Your task to perform on an android device: change the clock display to show seconds Image 0: 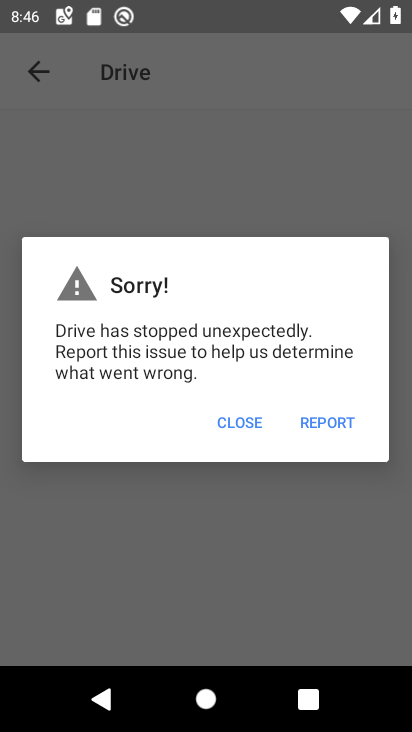
Step 0: press home button
Your task to perform on an android device: change the clock display to show seconds Image 1: 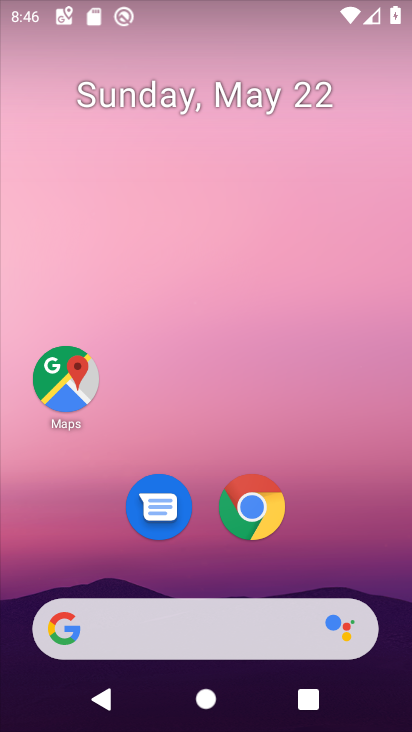
Step 1: drag from (204, 579) to (255, 150)
Your task to perform on an android device: change the clock display to show seconds Image 2: 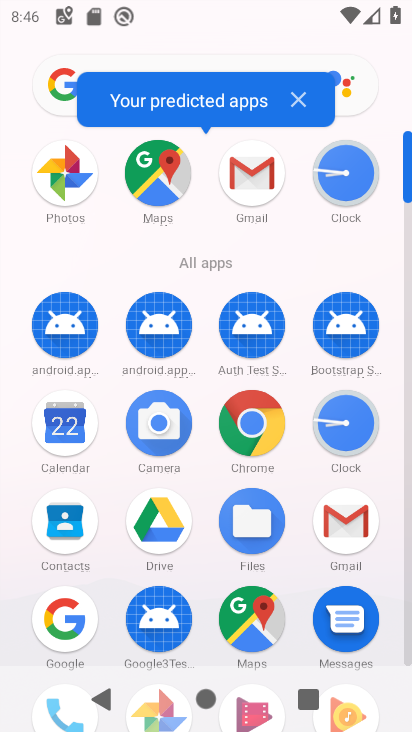
Step 2: drag from (130, 563) to (209, 220)
Your task to perform on an android device: change the clock display to show seconds Image 3: 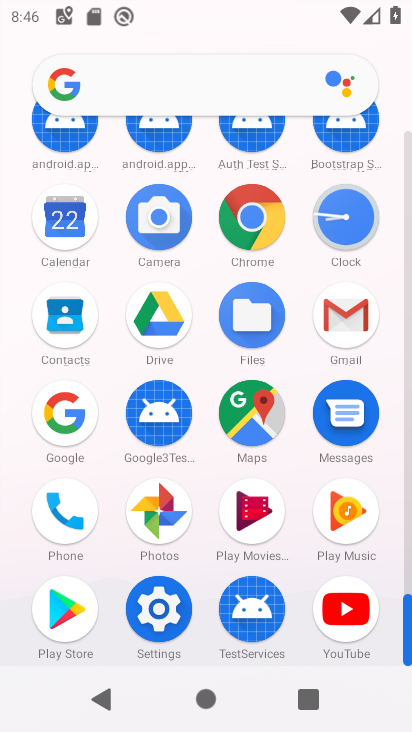
Step 3: click (133, 587)
Your task to perform on an android device: change the clock display to show seconds Image 4: 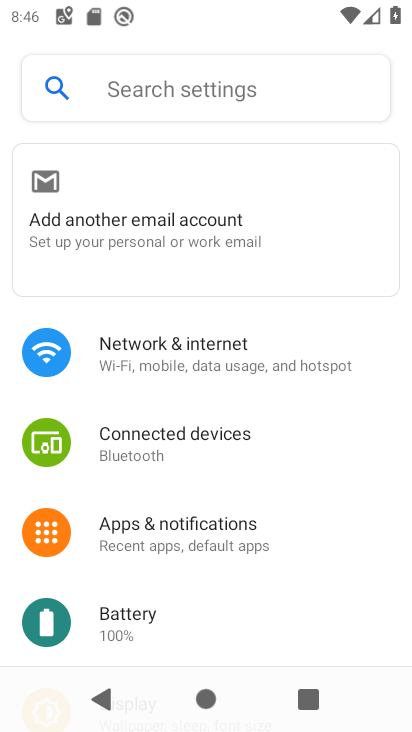
Step 4: click (111, 604)
Your task to perform on an android device: change the clock display to show seconds Image 5: 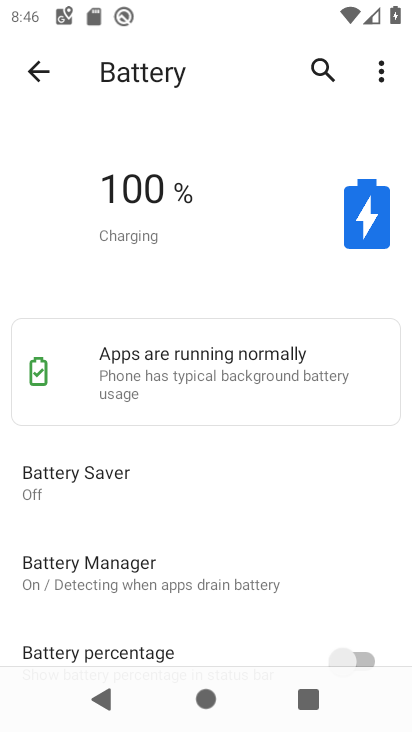
Step 5: task complete